Your task to perform on an android device: turn off picture-in-picture Image 0: 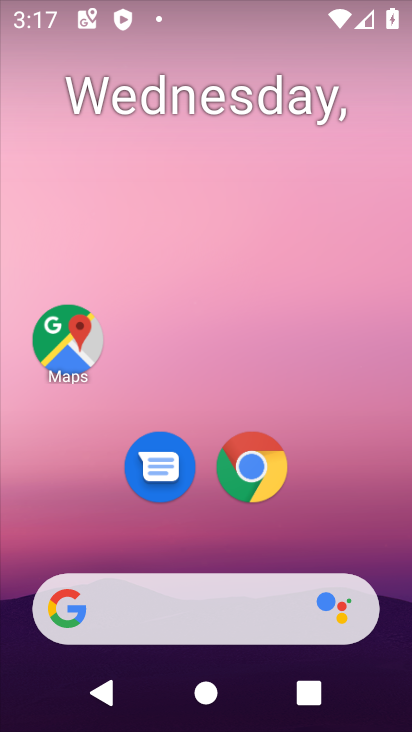
Step 0: drag from (364, 424) to (334, 183)
Your task to perform on an android device: turn off picture-in-picture Image 1: 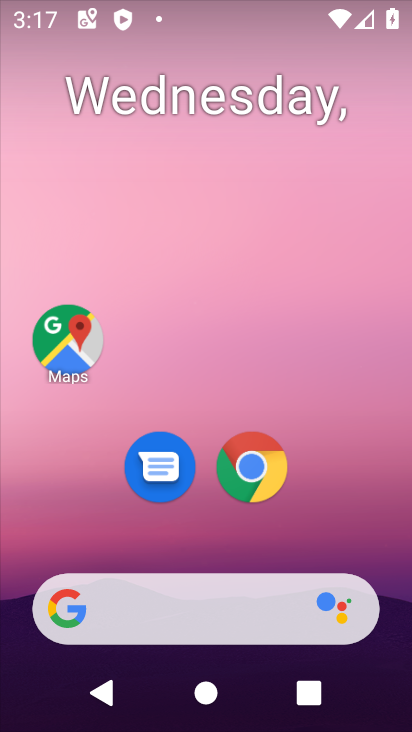
Step 1: drag from (346, 530) to (297, 52)
Your task to perform on an android device: turn off picture-in-picture Image 2: 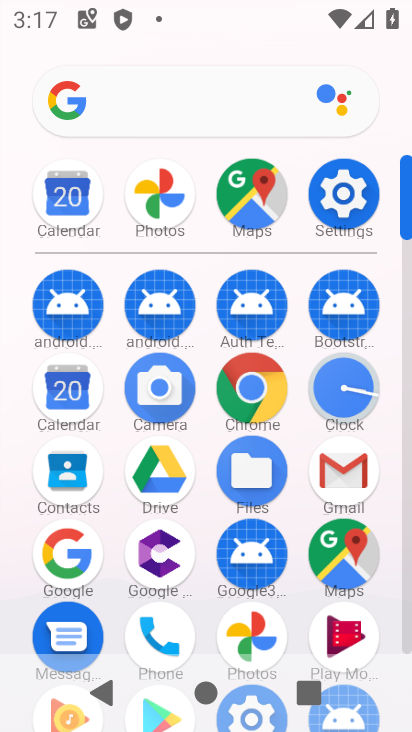
Step 2: click (407, 637)
Your task to perform on an android device: turn off picture-in-picture Image 3: 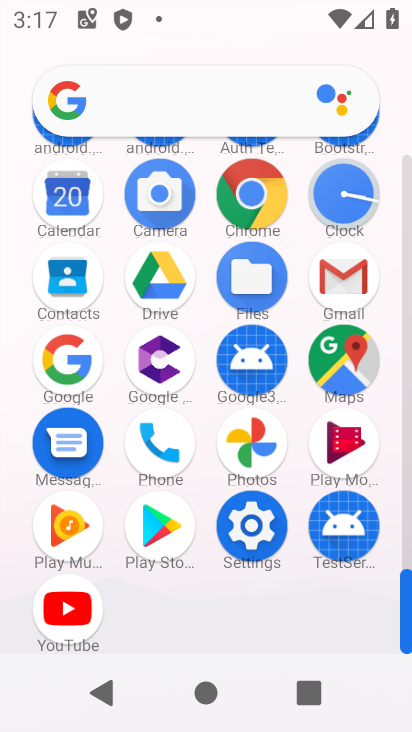
Step 3: click (252, 524)
Your task to perform on an android device: turn off picture-in-picture Image 4: 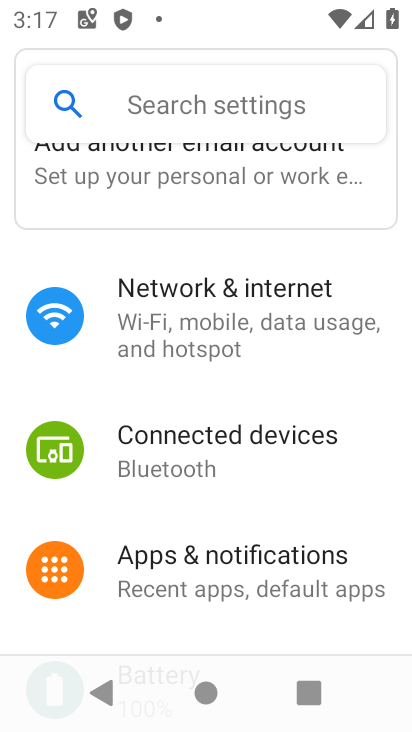
Step 4: drag from (278, 518) to (315, 223)
Your task to perform on an android device: turn off picture-in-picture Image 5: 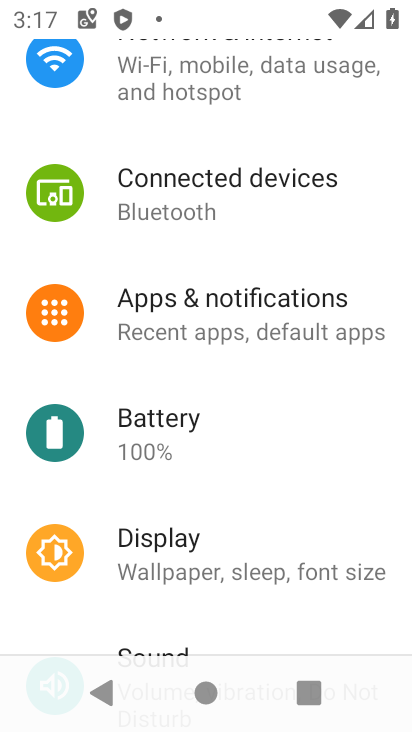
Step 5: click (206, 320)
Your task to perform on an android device: turn off picture-in-picture Image 6: 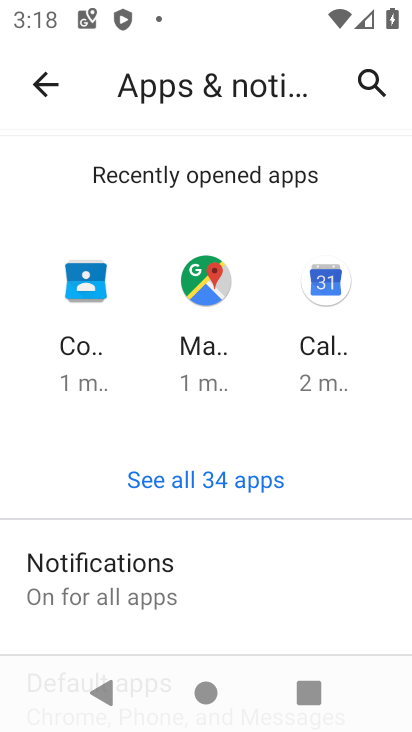
Step 6: drag from (215, 599) to (248, 198)
Your task to perform on an android device: turn off picture-in-picture Image 7: 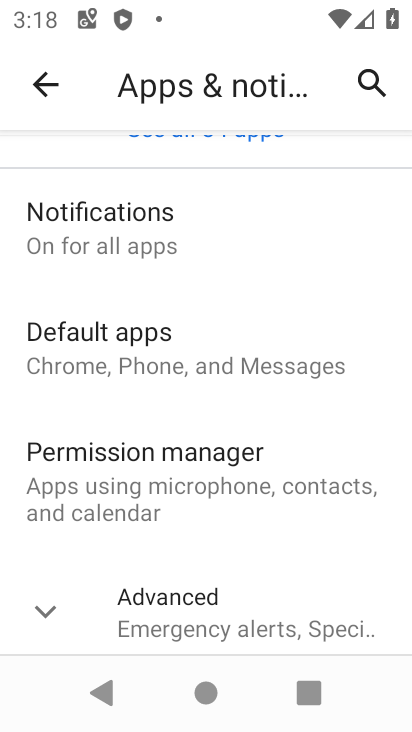
Step 7: click (57, 626)
Your task to perform on an android device: turn off picture-in-picture Image 8: 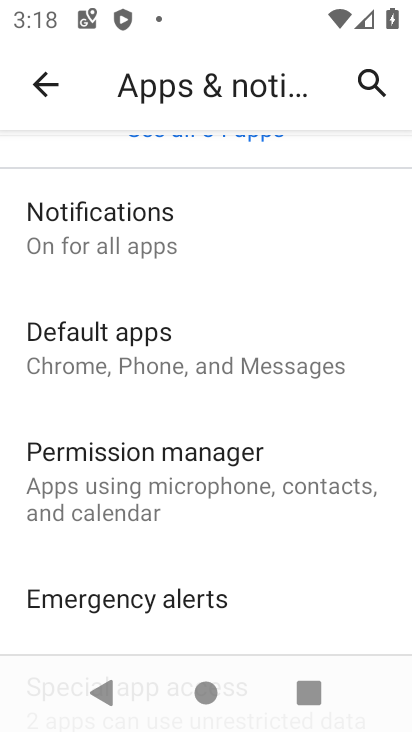
Step 8: drag from (179, 594) to (217, 228)
Your task to perform on an android device: turn off picture-in-picture Image 9: 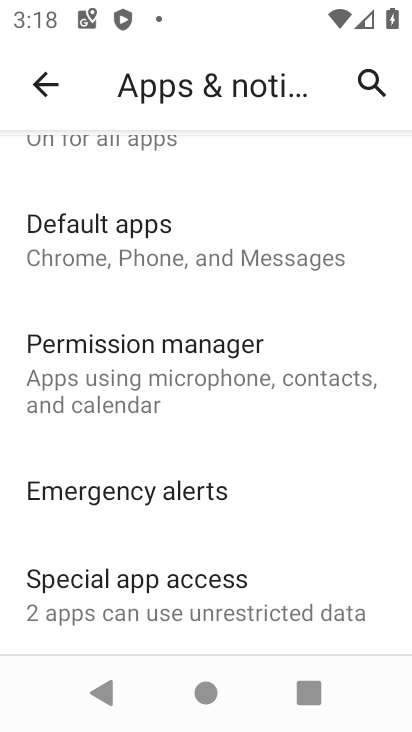
Step 9: drag from (184, 495) to (213, 163)
Your task to perform on an android device: turn off picture-in-picture Image 10: 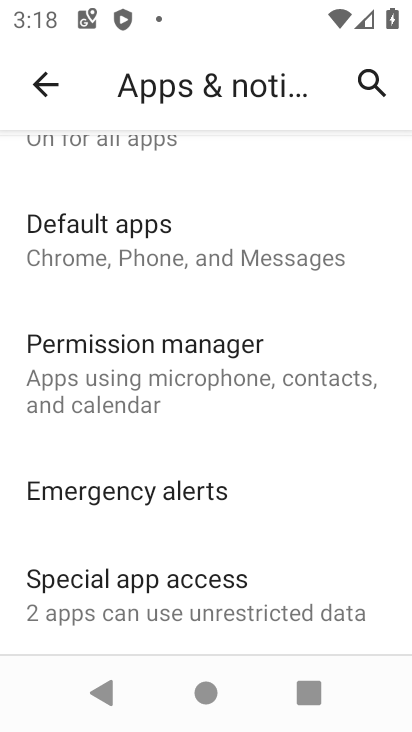
Step 10: click (130, 601)
Your task to perform on an android device: turn off picture-in-picture Image 11: 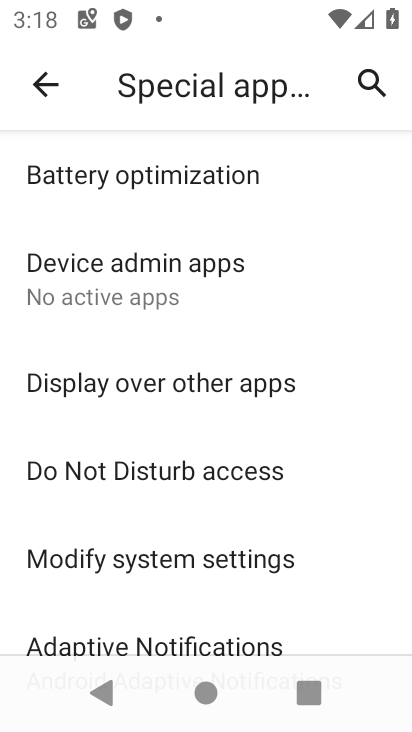
Step 11: drag from (163, 561) to (195, 178)
Your task to perform on an android device: turn off picture-in-picture Image 12: 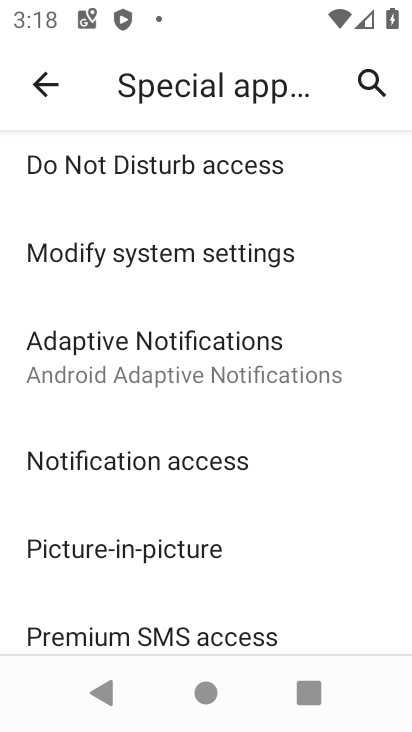
Step 12: click (118, 552)
Your task to perform on an android device: turn off picture-in-picture Image 13: 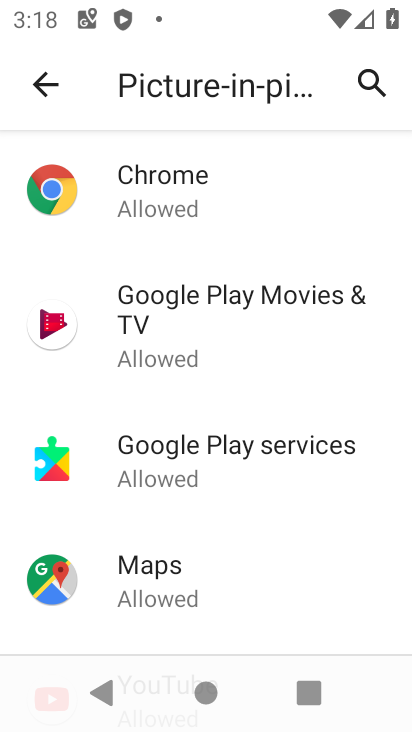
Step 13: drag from (220, 599) to (244, 207)
Your task to perform on an android device: turn off picture-in-picture Image 14: 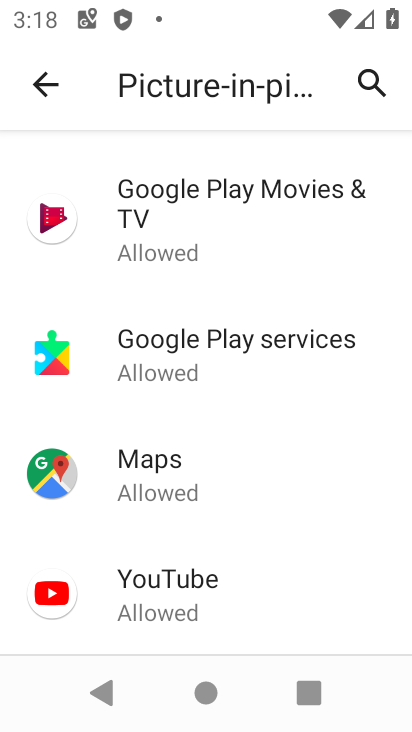
Step 14: click (152, 577)
Your task to perform on an android device: turn off picture-in-picture Image 15: 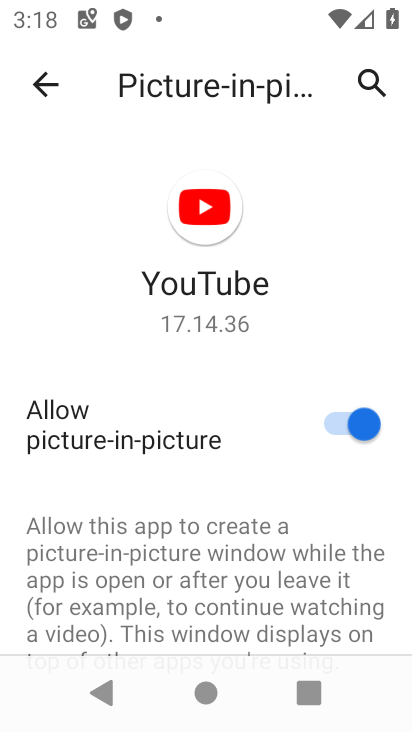
Step 15: click (332, 417)
Your task to perform on an android device: turn off picture-in-picture Image 16: 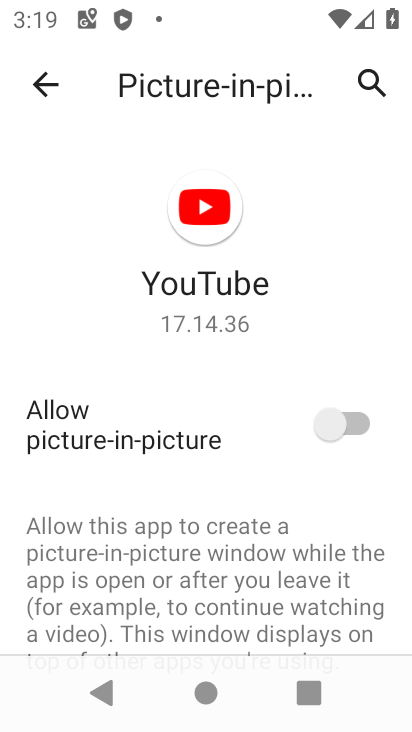
Step 16: task complete